Your task to perform on an android device: Go to privacy settings Image 0: 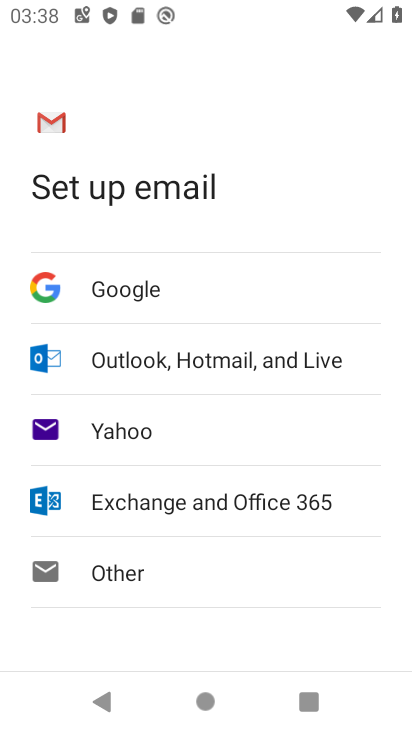
Step 0: press home button
Your task to perform on an android device: Go to privacy settings Image 1: 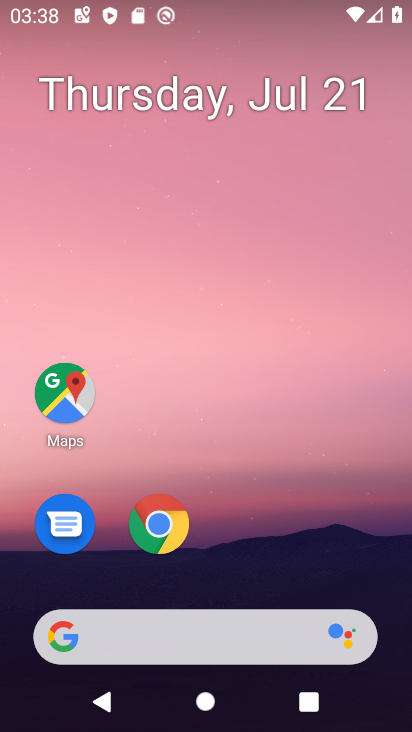
Step 1: drag from (283, 556) to (306, 6)
Your task to perform on an android device: Go to privacy settings Image 2: 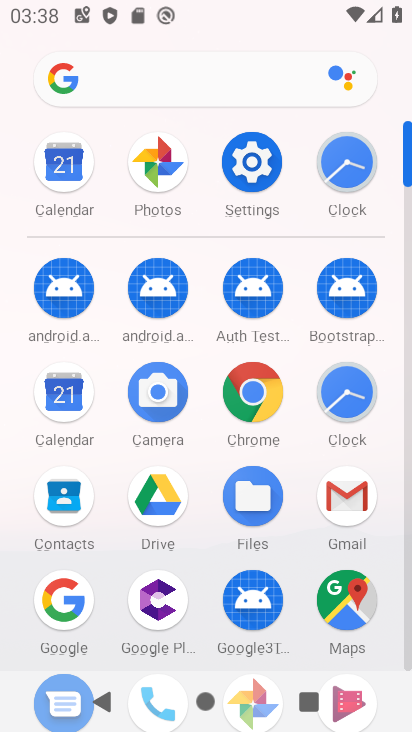
Step 2: click (262, 164)
Your task to perform on an android device: Go to privacy settings Image 3: 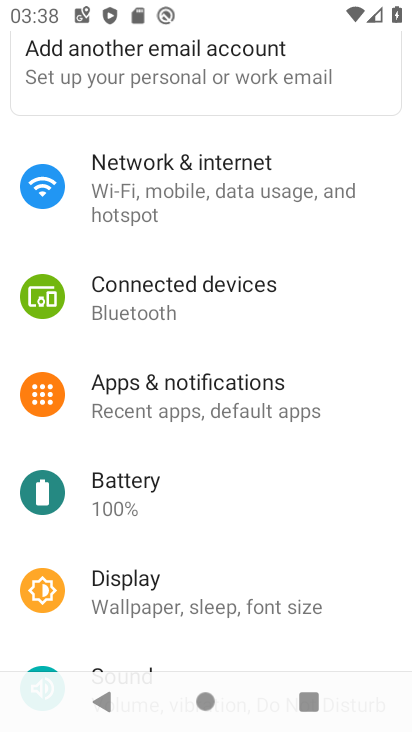
Step 3: drag from (232, 531) to (241, 70)
Your task to perform on an android device: Go to privacy settings Image 4: 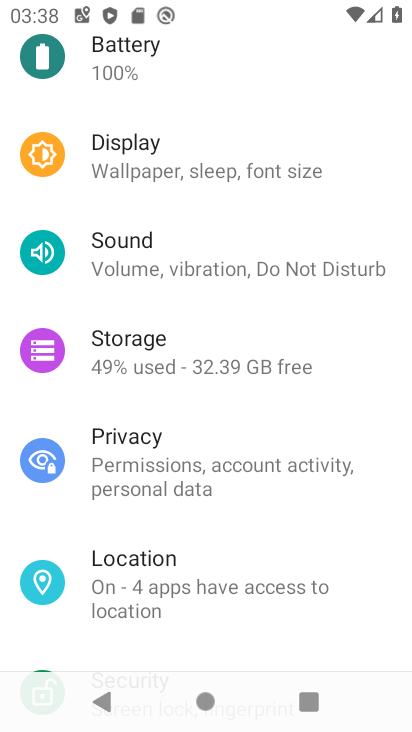
Step 4: click (208, 464)
Your task to perform on an android device: Go to privacy settings Image 5: 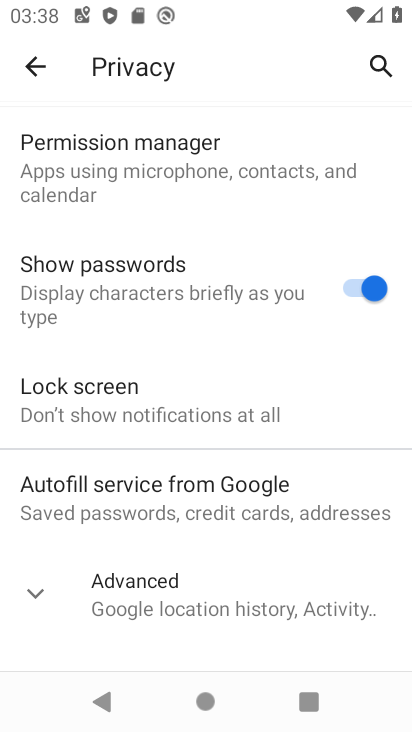
Step 5: click (35, 586)
Your task to perform on an android device: Go to privacy settings Image 6: 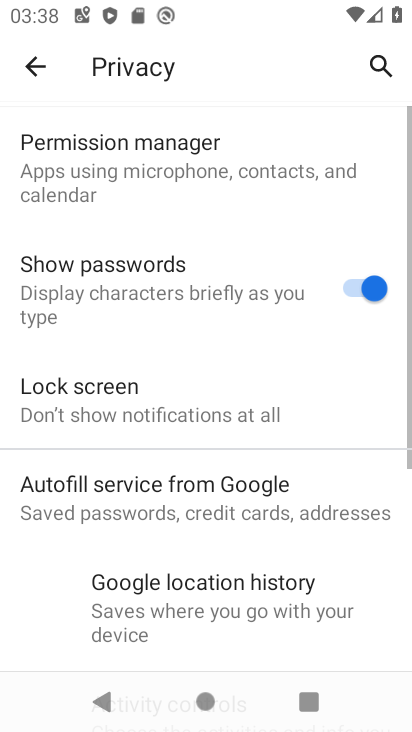
Step 6: task complete